Your task to perform on an android device: Go to Amazon Image 0: 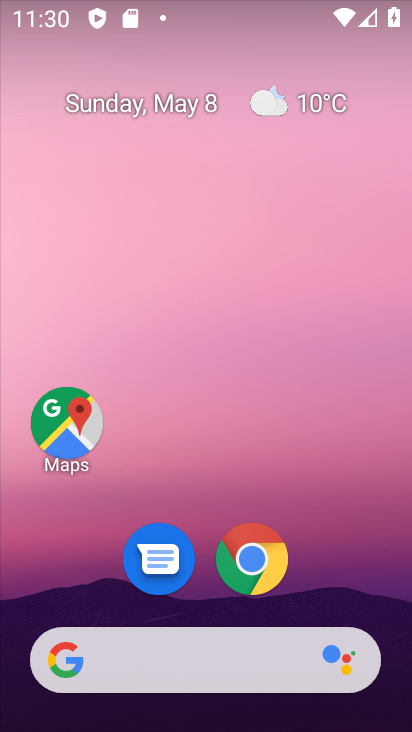
Step 0: click (241, 563)
Your task to perform on an android device: Go to Amazon Image 1: 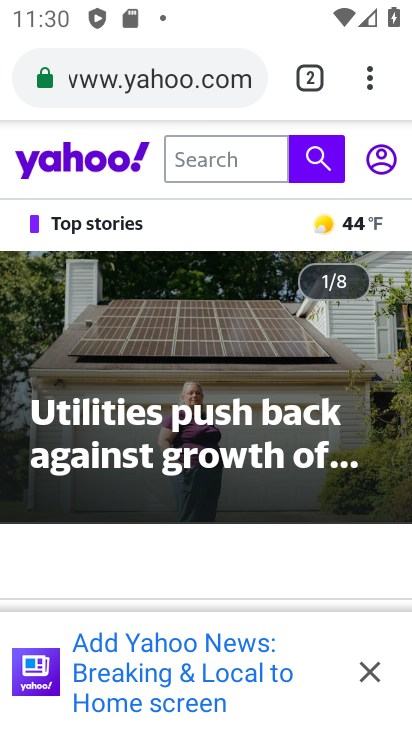
Step 1: click (376, 70)
Your task to perform on an android device: Go to Amazon Image 2: 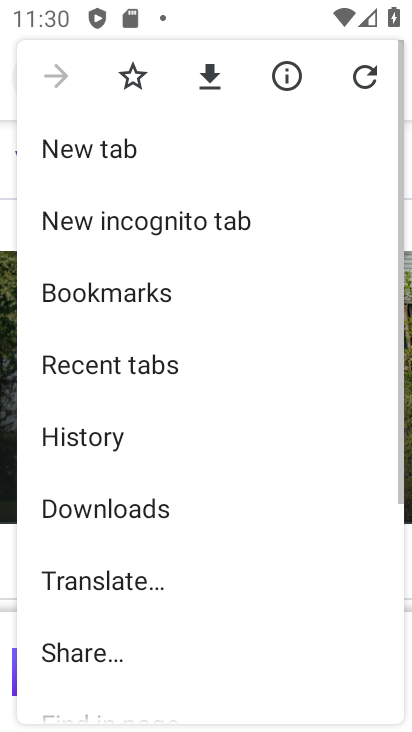
Step 2: click (160, 149)
Your task to perform on an android device: Go to Amazon Image 3: 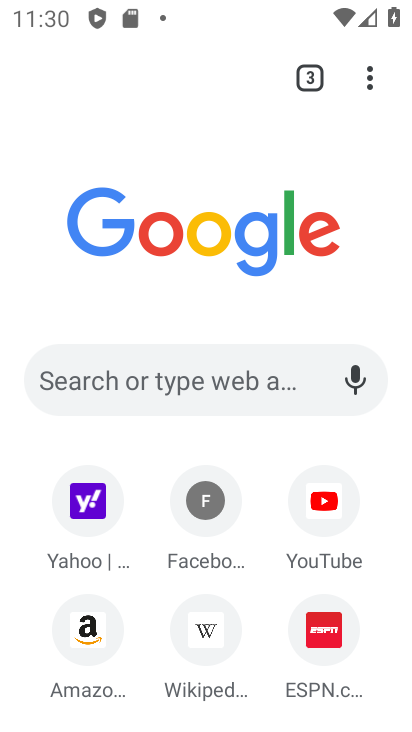
Step 3: click (86, 624)
Your task to perform on an android device: Go to Amazon Image 4: 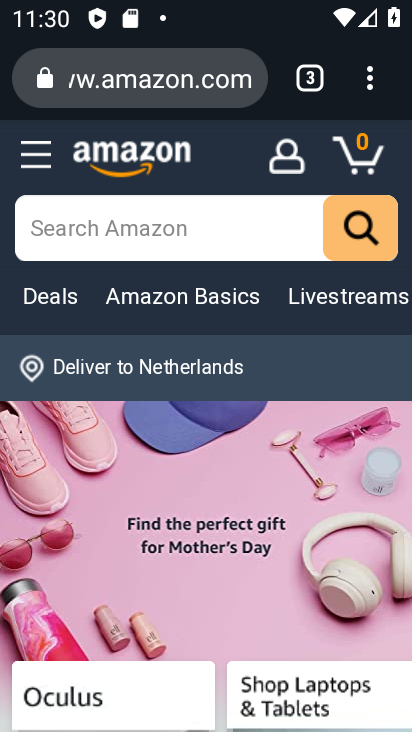
Step 4: task complete